Your task to perform on an android device: open a bookmark in the chrome app Image 0: 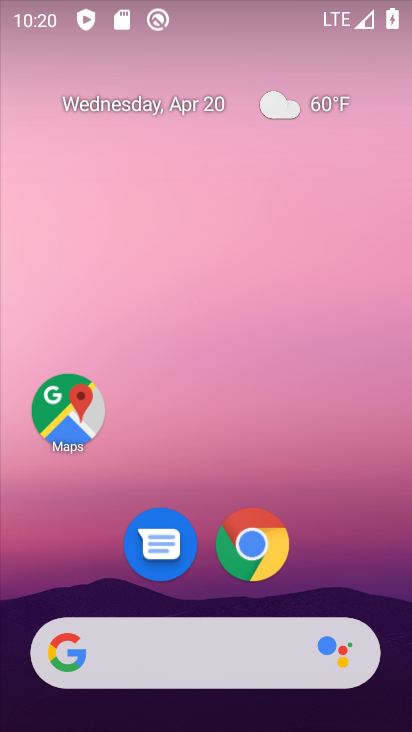
Step 0: click (264, 538)
Your task to perform on an android device: open a bookmark in the chrome app Image 1: 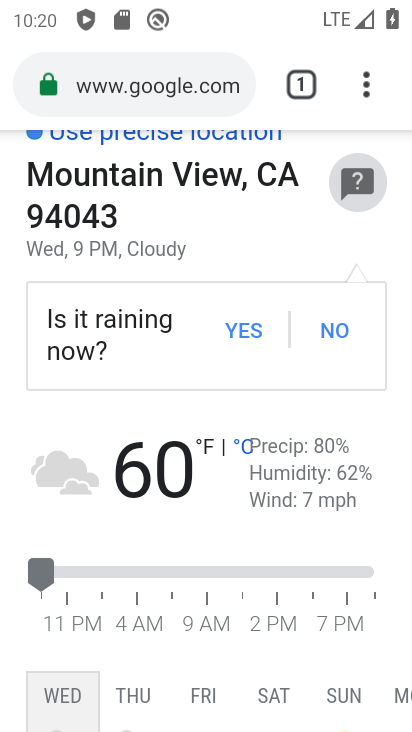
Step 1: click (373, 88)
Your task to perform on an android device: open a bookmark in the chrome app Image 2: 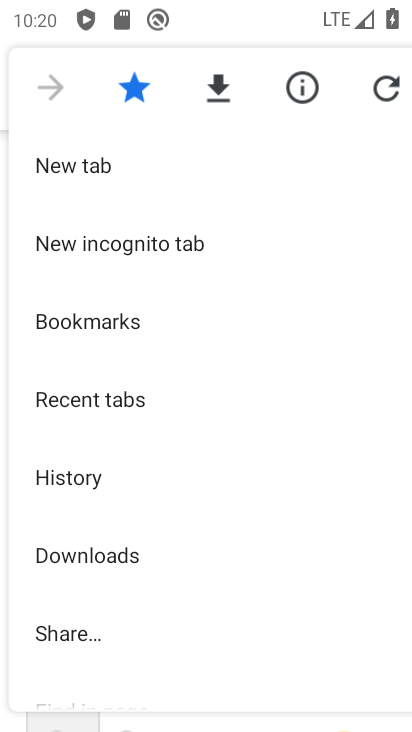
Step 2: click (231, 332)
Your task to perform on an android device: open a bookmark in the chrome app Image 3: 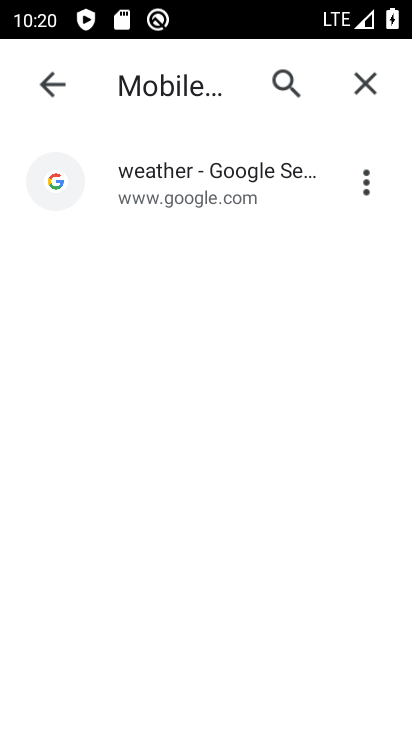
Step 3: click (212, 193)
Your task to perform on an android device: open a bookmark in the chrome app Image 4: 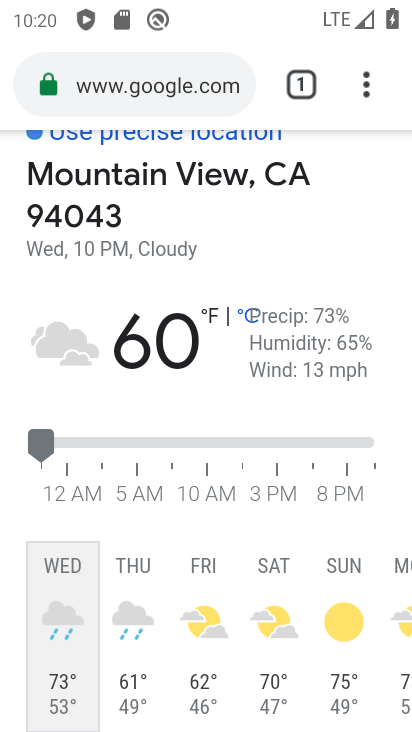
Step 4: task complete